Your task to perform on an android device: open a new tab in the chrome app Image 0: 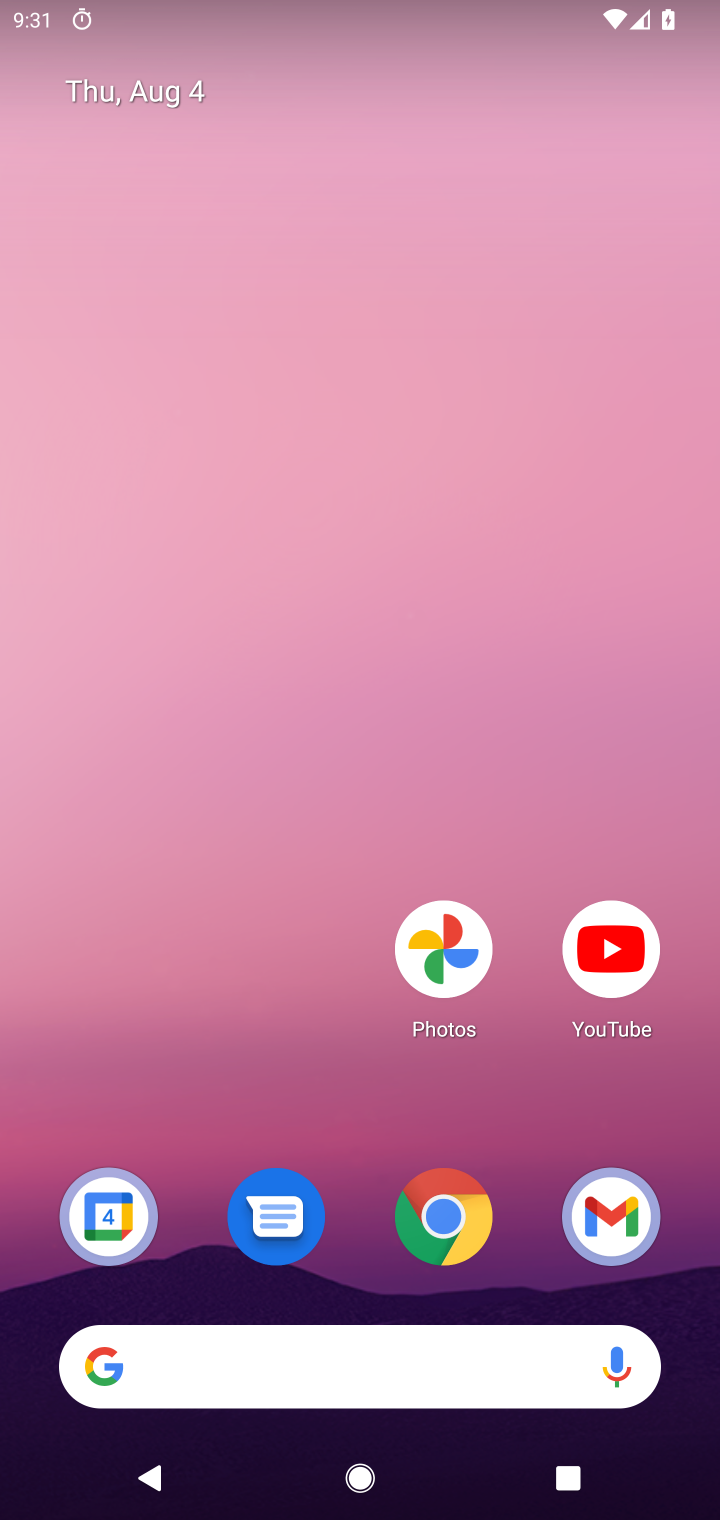
Step 0: drag from (355, 1191) to (394, 103)
Your task to perform on an android device: open a new tab in the chrome app Image 1: 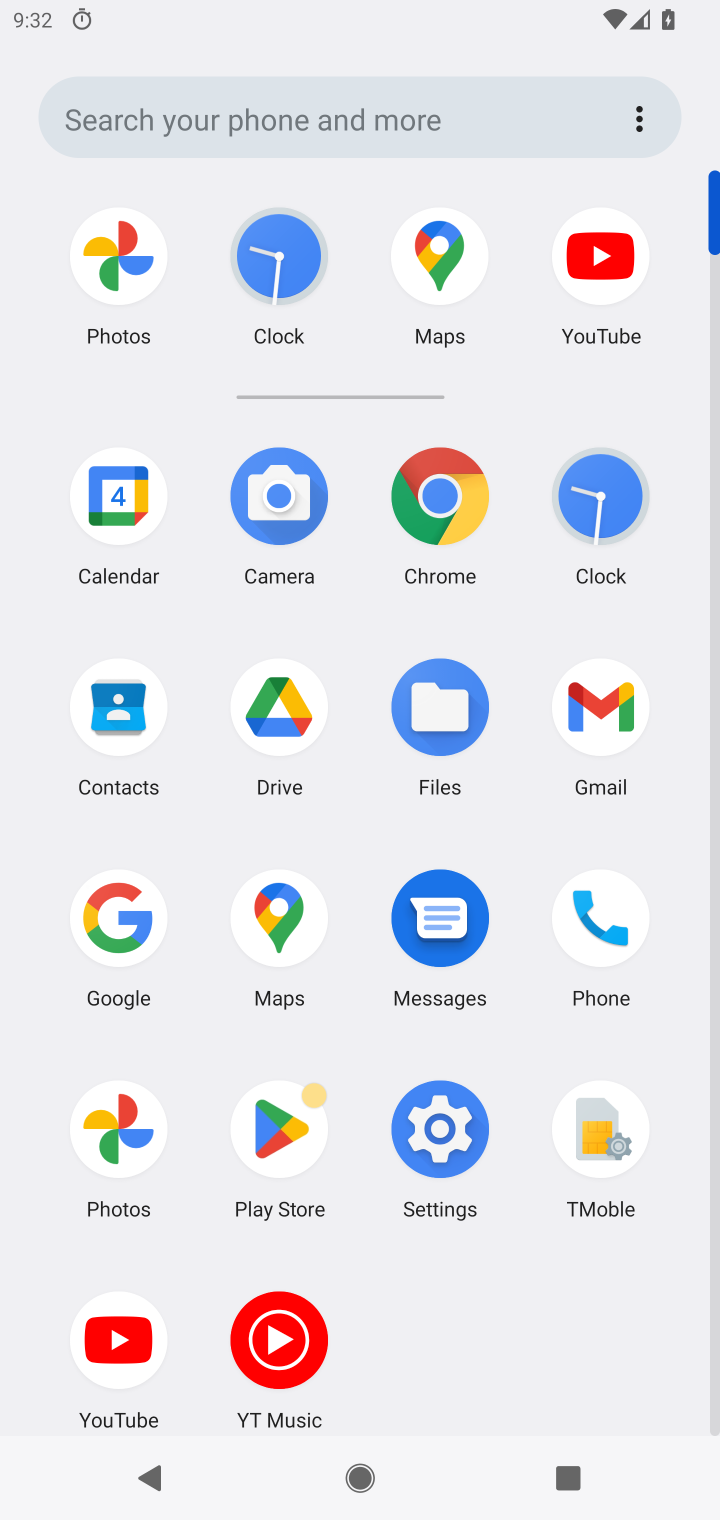
Step 1: click (436, 496)
Your task to perform on an android device: open a new tab in the chrome app Image 2: 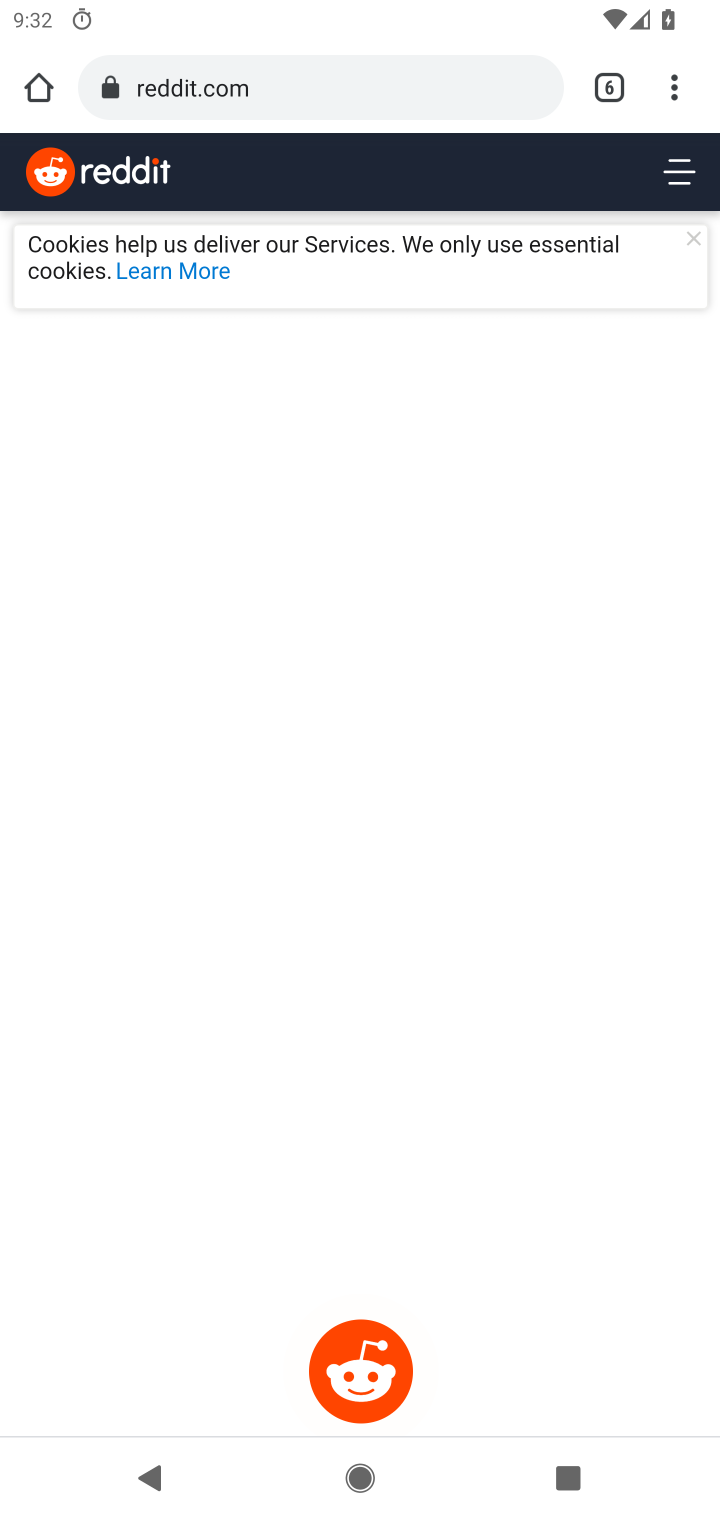
Step 2: task complete